Your task to perform on an android device: change the clock display to analog Image 0: 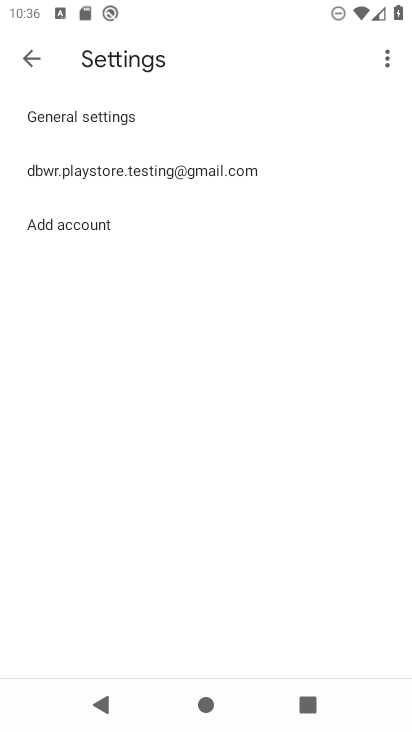
Step 0: press home button
Your task to perform on an android device: change the clock display to analog Image 1: 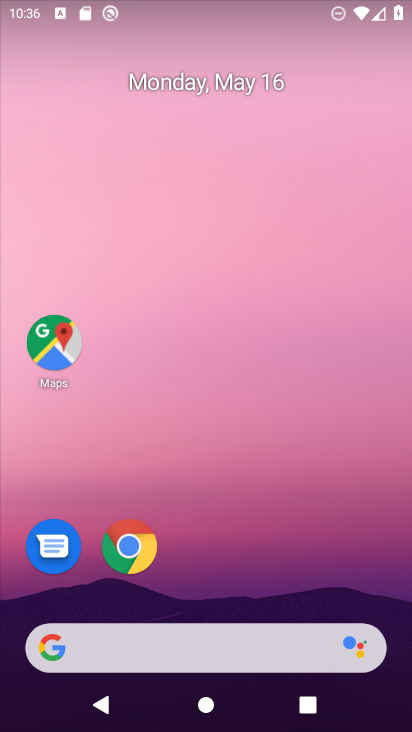
Step 1: drag from (176, 610) to (315, 114)
Your task to perform on an android device: change the clock display to analog Image 2: 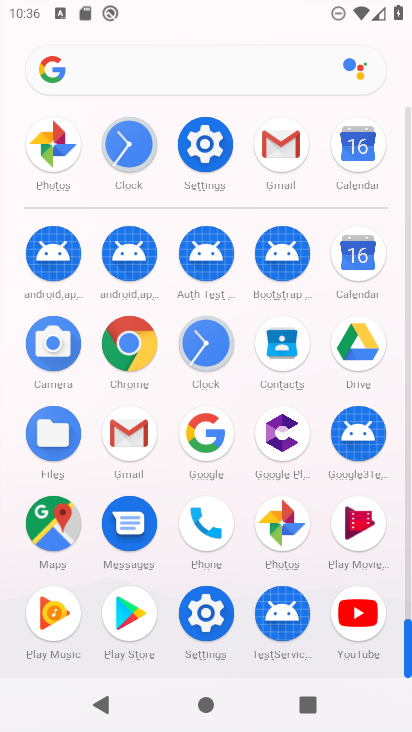
Step 2: click (192, 353)
Your task to perform on an android device: change the clock display to analog Image 3: 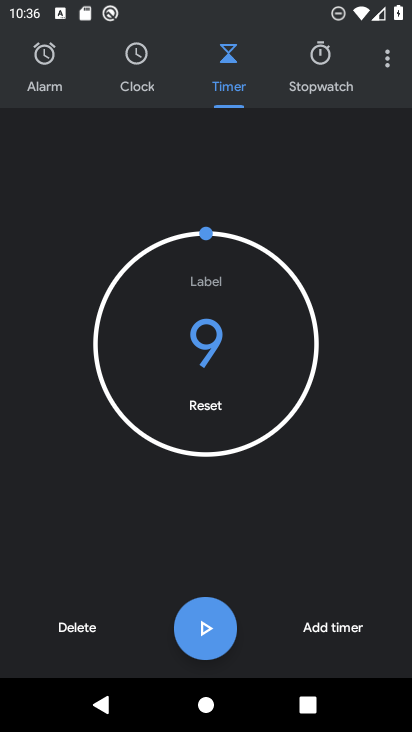
Step 3: click (398, 52)
Your task to perform on an android device: change the clock display to analog Image 4: 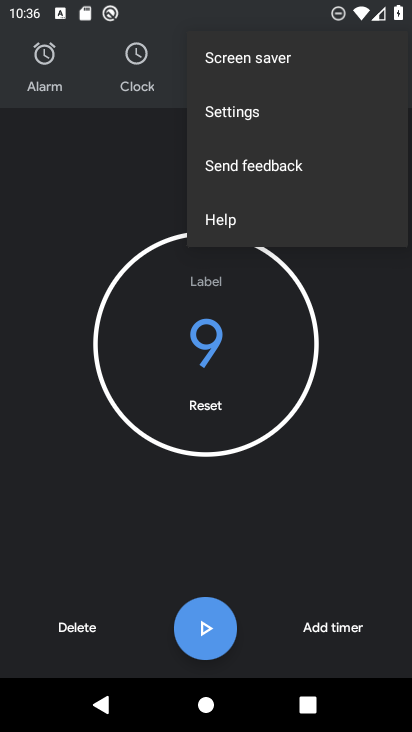
Step 4: click (234, 118)
Your task to perform on an android device: change the clock display to analog Image 5: 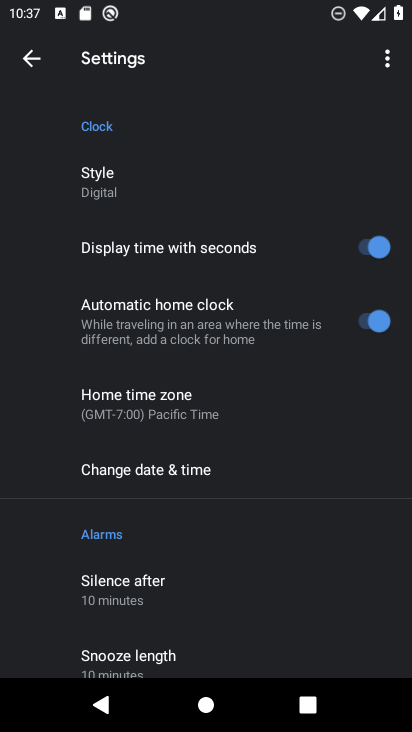
Step 5: click (93, 196)
Your task to perform on an android device: change the clock display to analog Image 6: 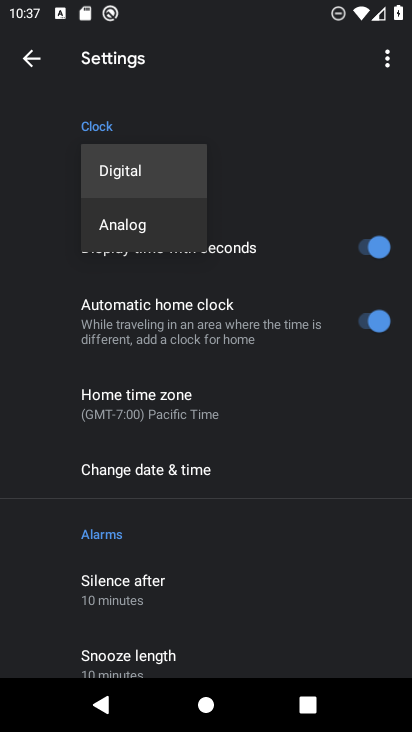
Step 6: click (158, 220)
Your task to perform on an android device: change the clock display to analog Image 7: 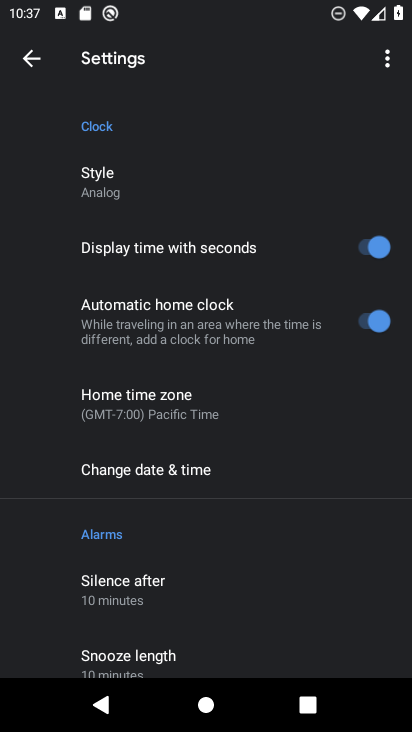
Step 7: task complete